Your task to perform on an android device: Open the map Image 0: 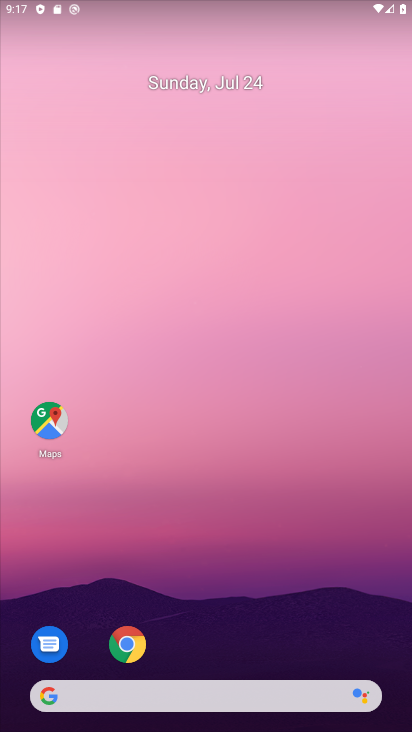
Step 0: click (47, 420)
Your task to perform on an android device: Open the map Image 1: 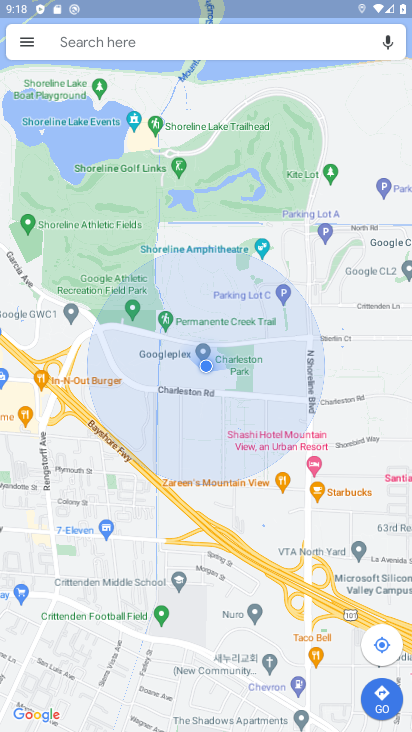
Step 1: task complete